Your task to perform on an android device: Open calendar and show me the third week of next month Image 0: 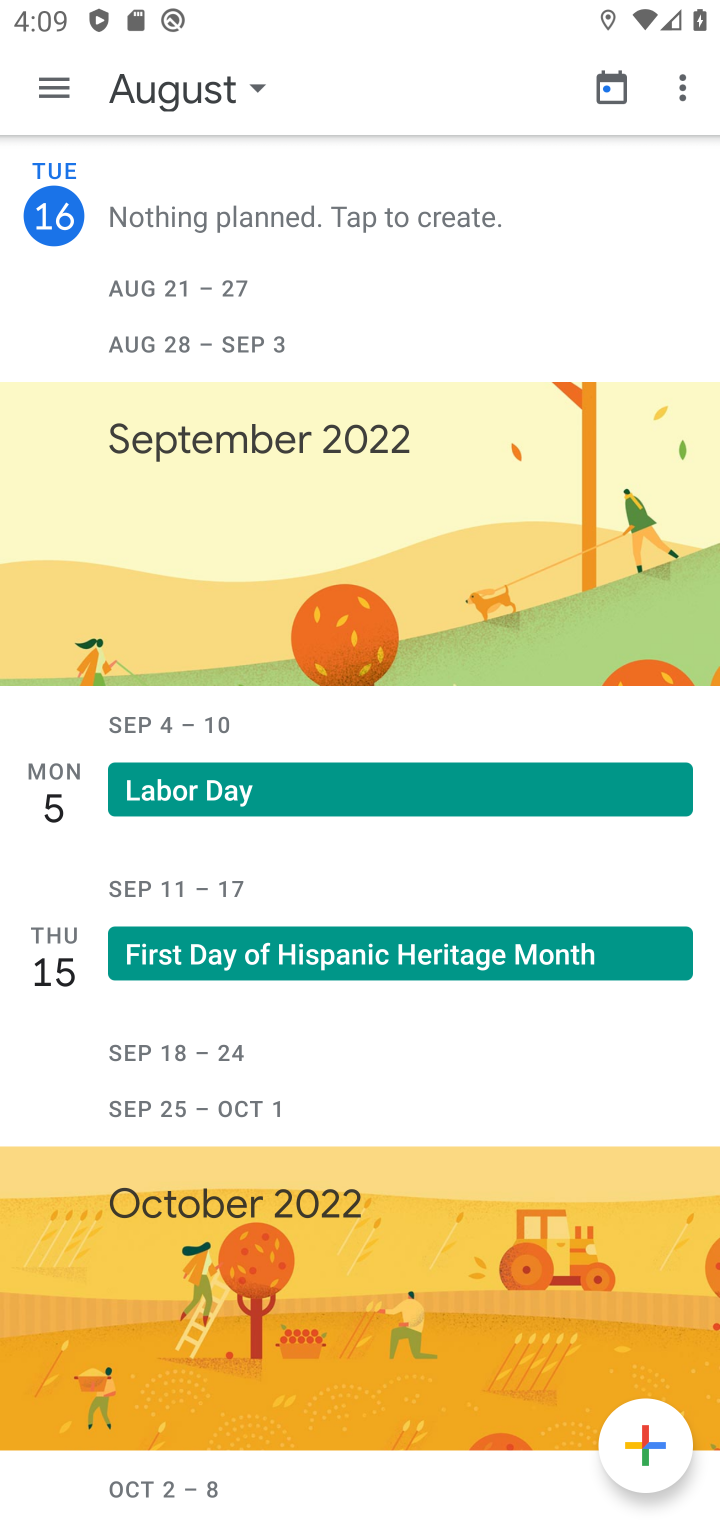
Step 0: press back button
Your task to perform on an android device: Open calendar and show me the third week of next month Image 1: 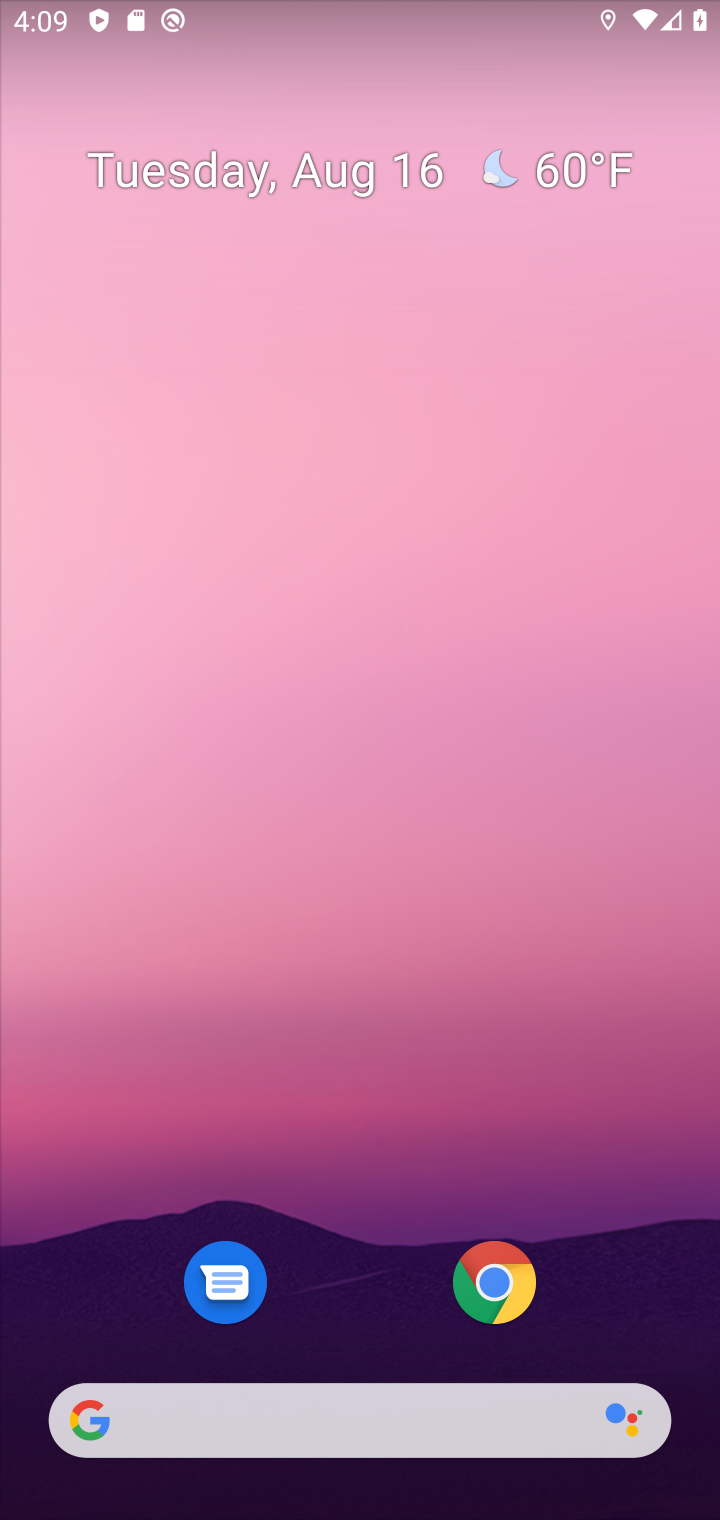
Step 1: drag from (382, 998) to (382, 317)
Your task to perform on an android device: Open calendar and show me the third week of next month Image 2: 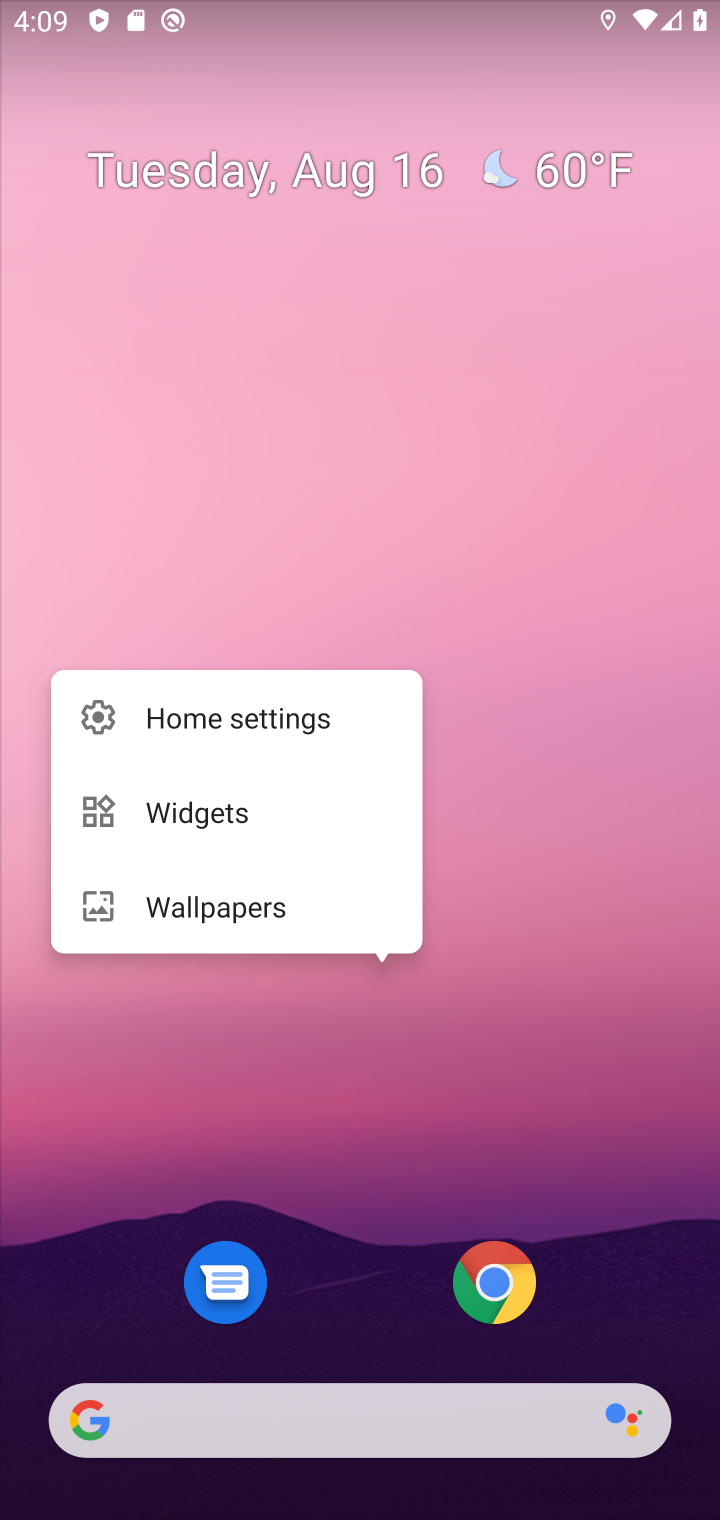
Step 2: click (378, 1305)
Your task to perform on an android device: Open calendar and show me the third week of next month Image 3: 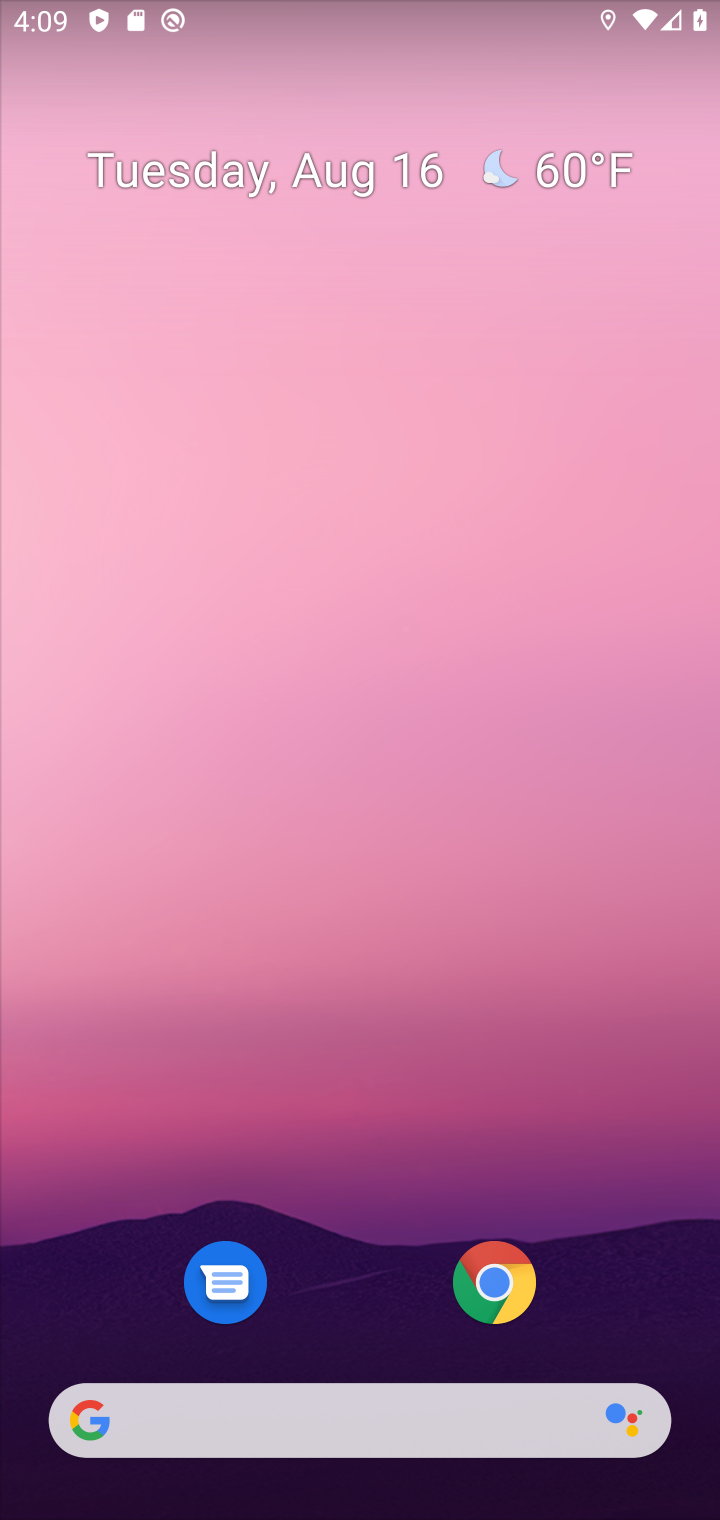
Step 3: drag from (452, 737) to (531, 54)
Your task to perform on an android device: Open calendar and show me the third week of next month Image 4: 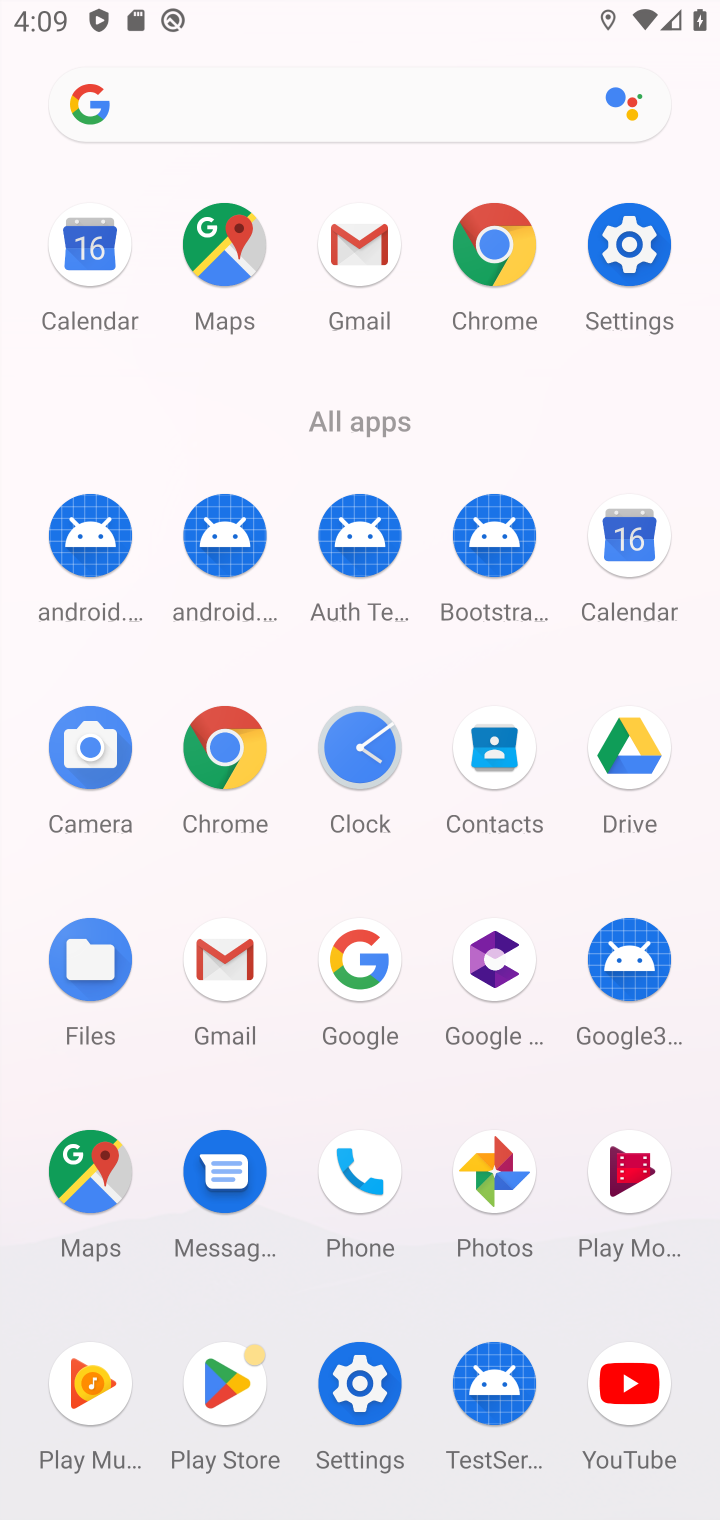
Step 4: click (94, 249)
Your task to perform on an android device: Open calendar and show me the third week of next month Image 5: 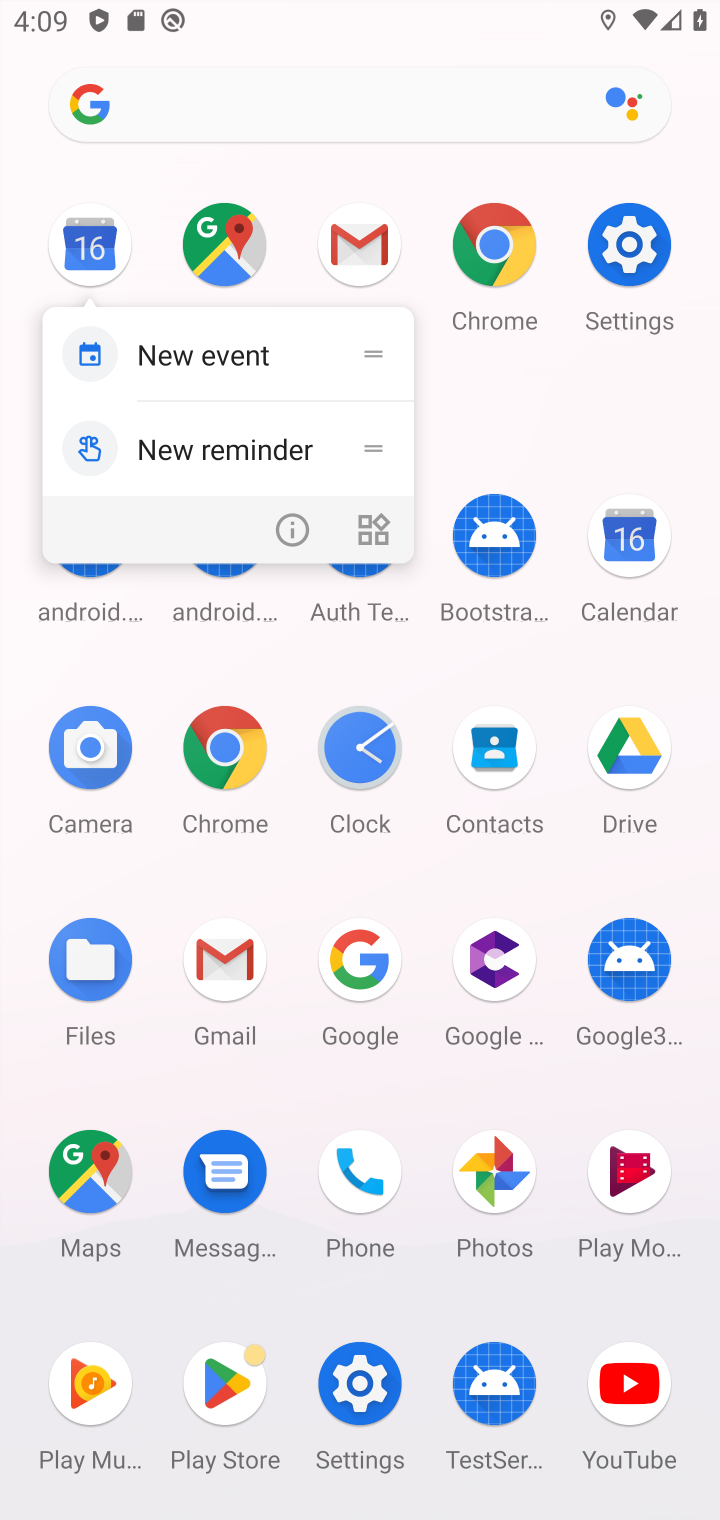
Step 5: click (96, 251)
Your task to perform on an android device: Open calendar and show me the third week of next month Image 6: 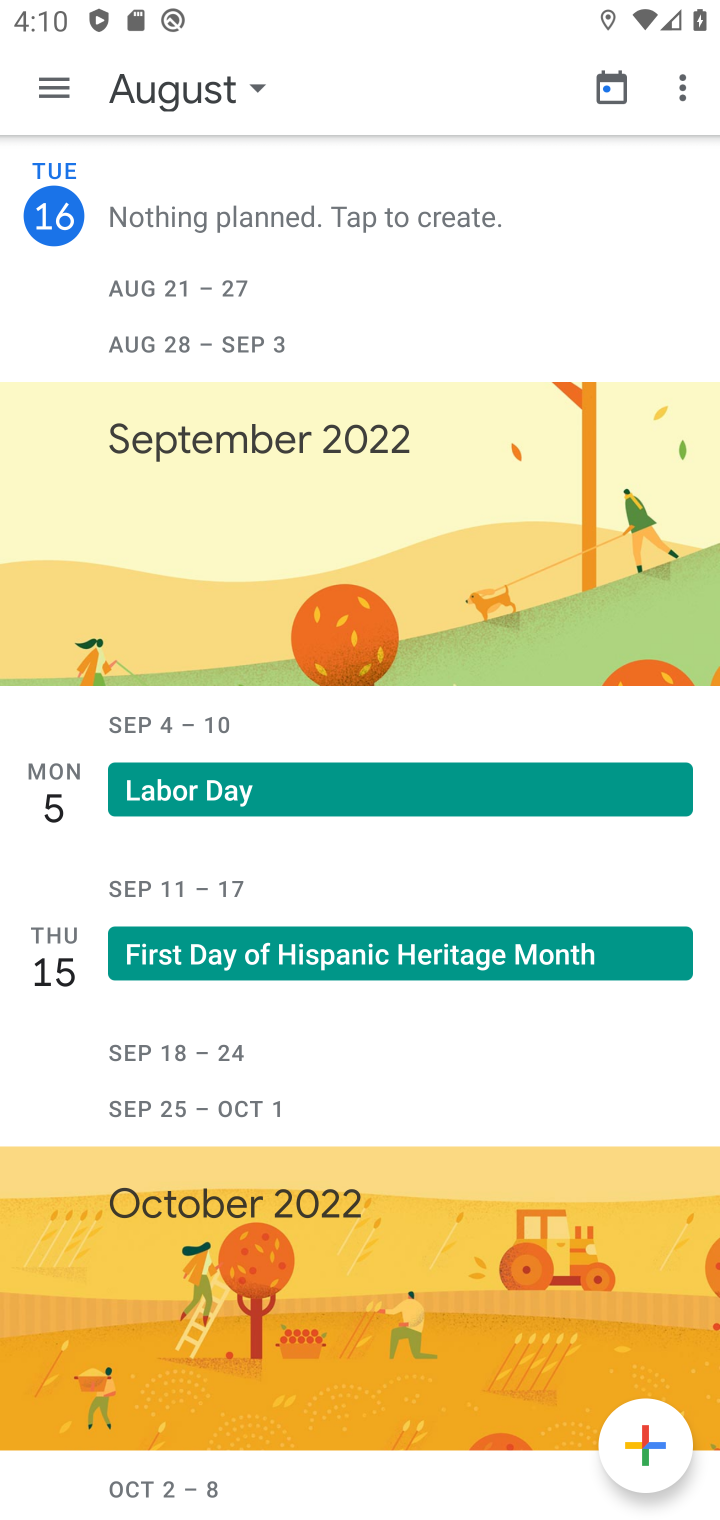
Step 6: click (199, 89)
Your task to perform on an android device: Open calendar and show me the third week of next month Image 7: 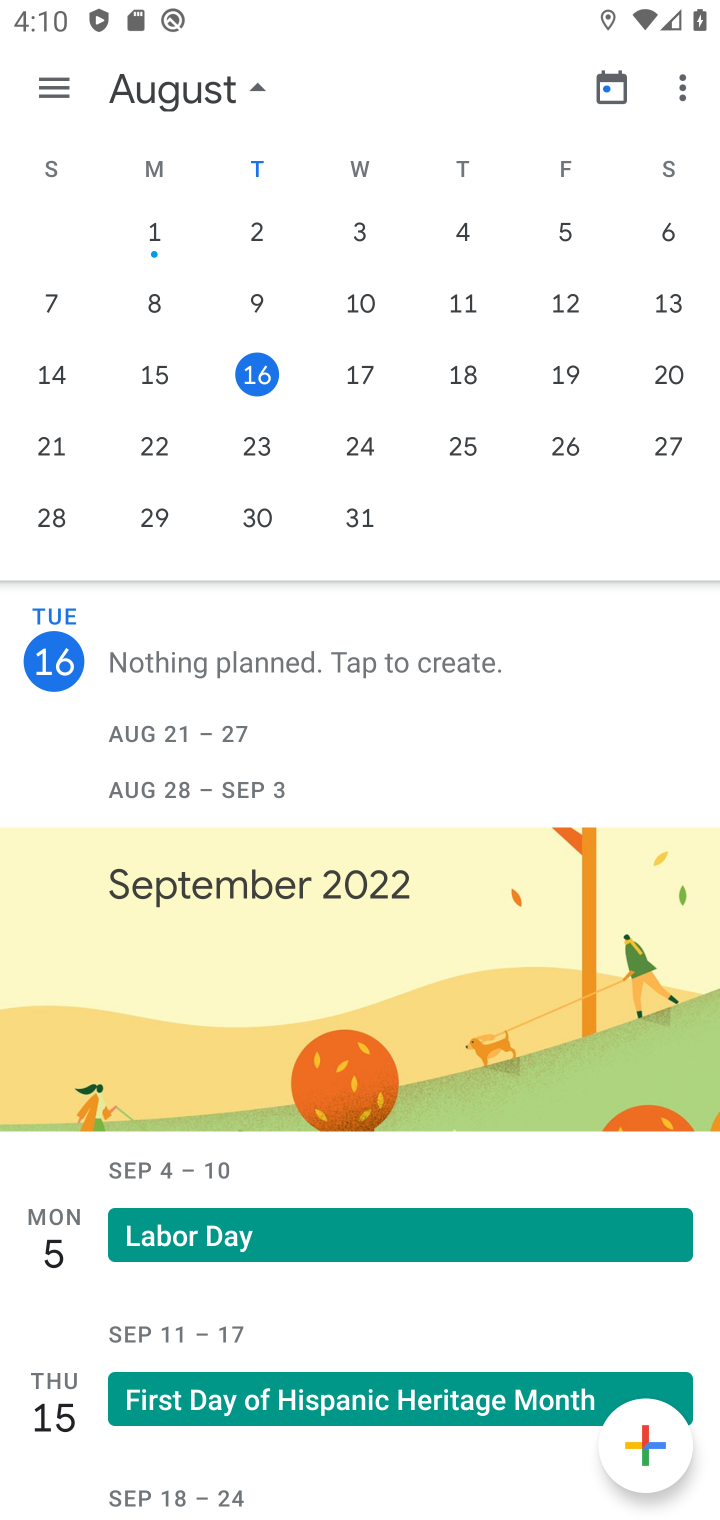
Step 7: drag from (676, 377) to (35, 342)
Your task to perform on an android device: Open calendar and show me the third week of next month Image 8: 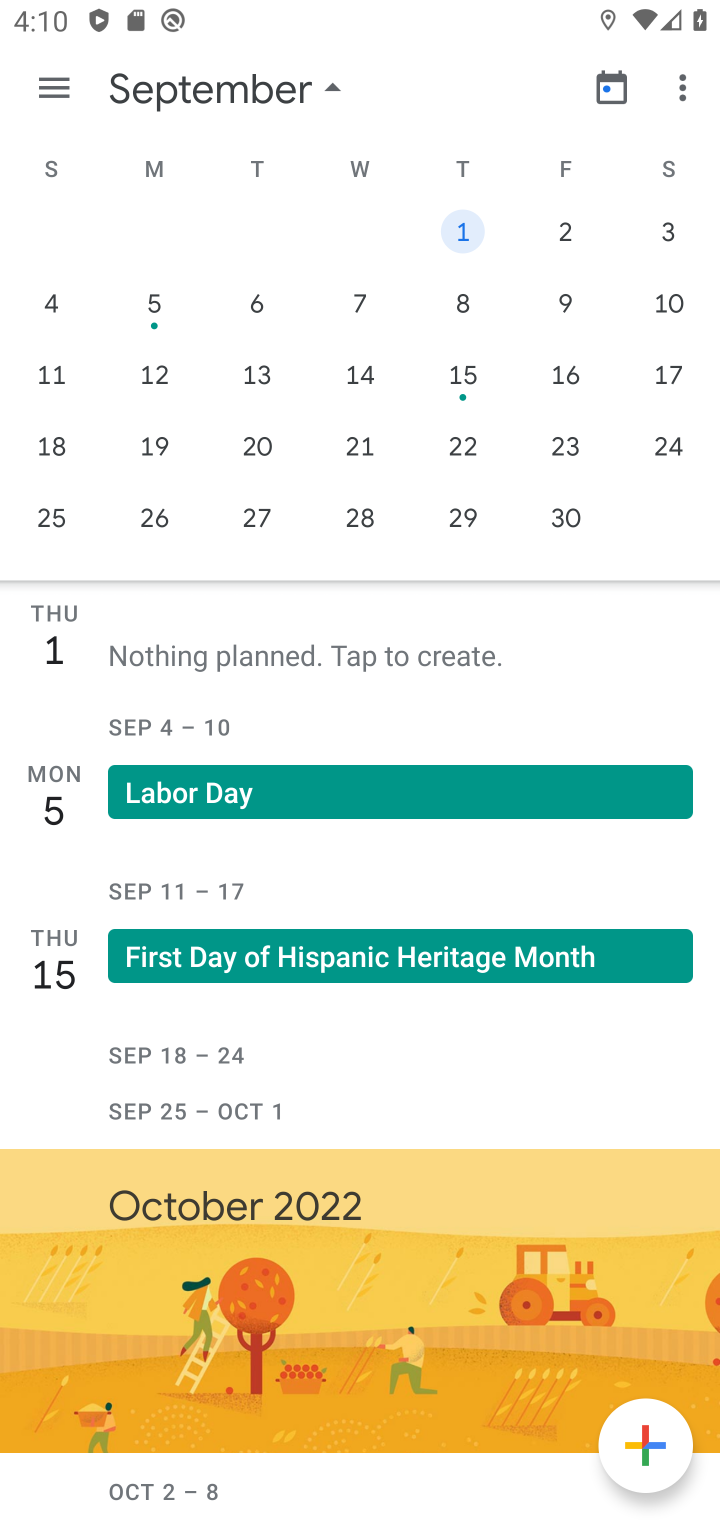
Step 8: click (149, 434)
Your task to perform on an android device: Open calendar and show me the third week of next month Image 9: 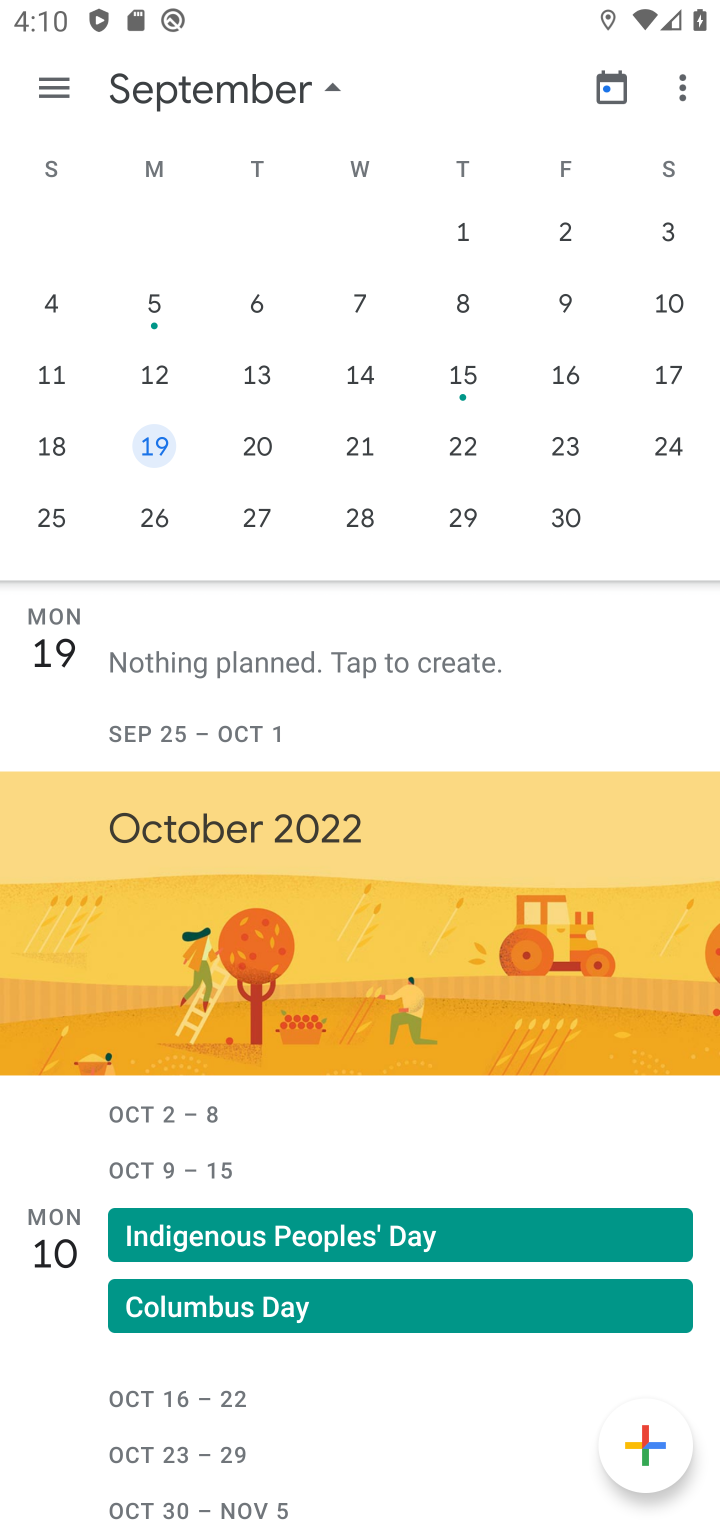
Step 9: click (150, 440)
Your task to perform on an android device: Open calendar and show me the third week of next month Image 10: 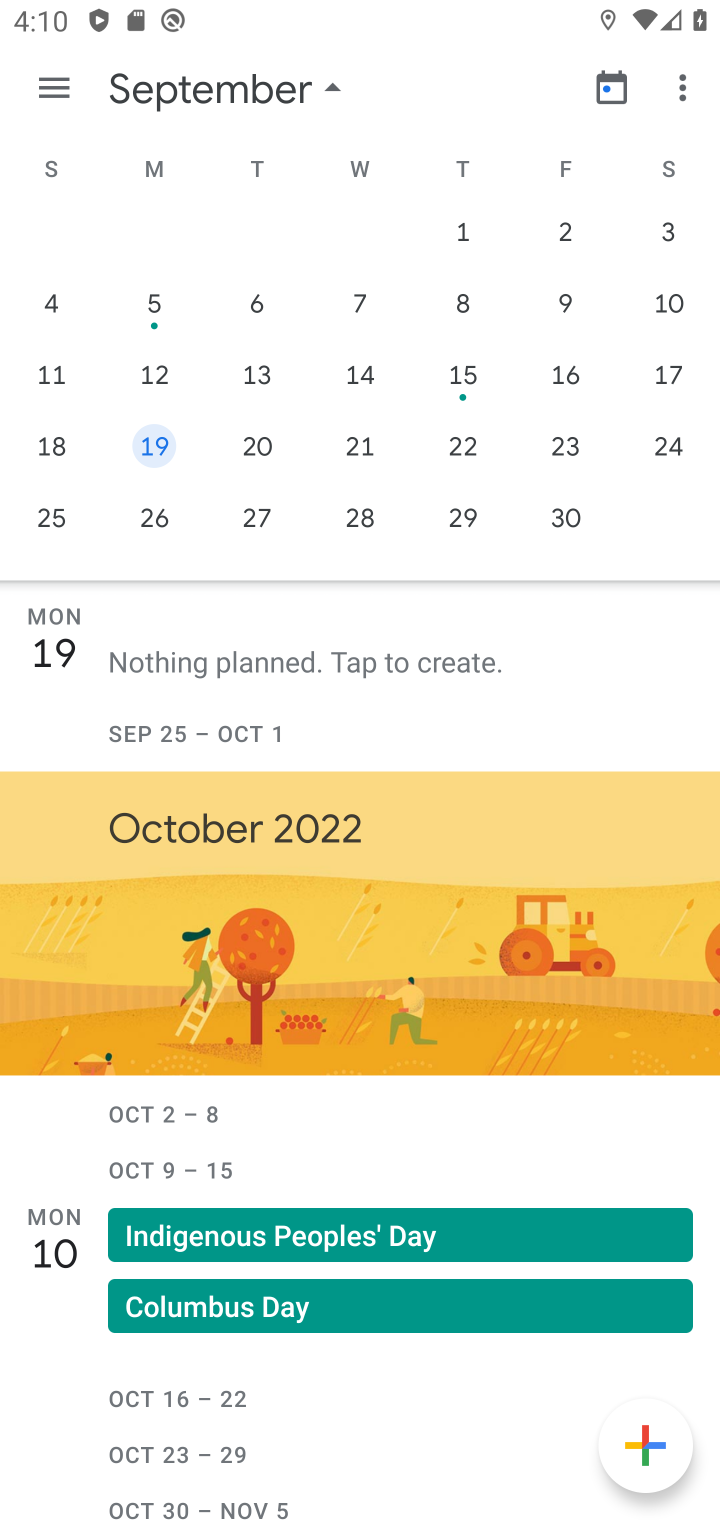
Step 10: task complete